Your task to perform on an android device: change keyboard looks Image 0: 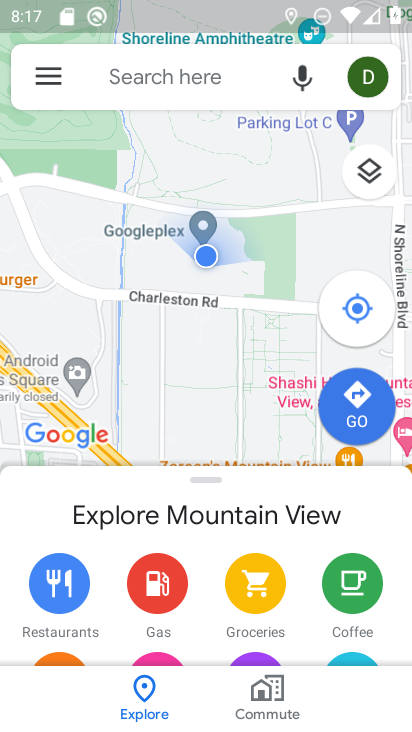
Step 0: press home button
Your task to perform on an android device: change keyboard looks Image 1: 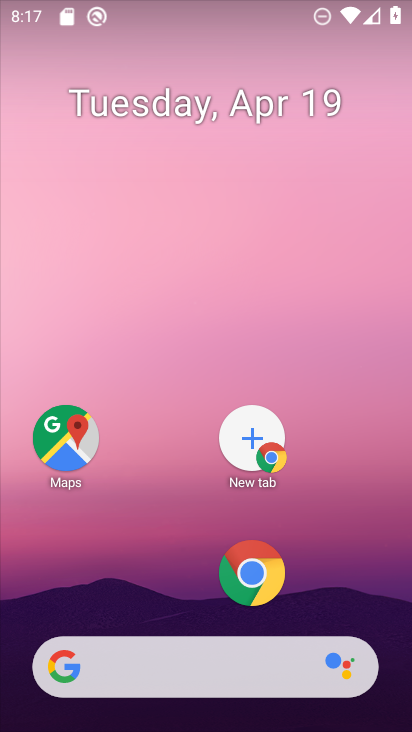
Step 1: drag from (157, 589) to (74, 5)
Your task to perform on an android device: change keyboard looks Image 2: 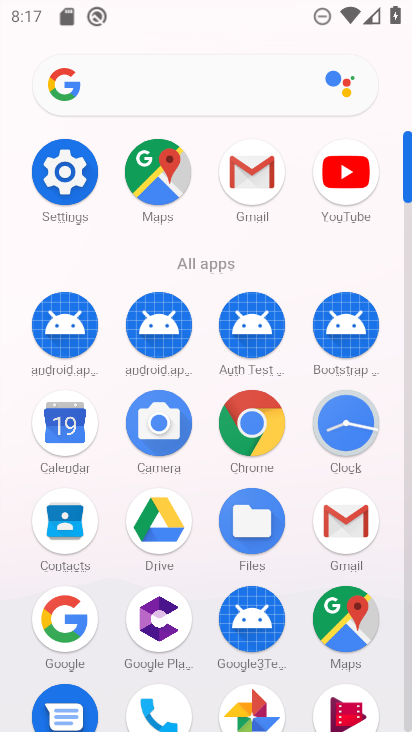
Step 2: click (68, 191)
Your task to perform on an android device: change keyboard looks Image 3: 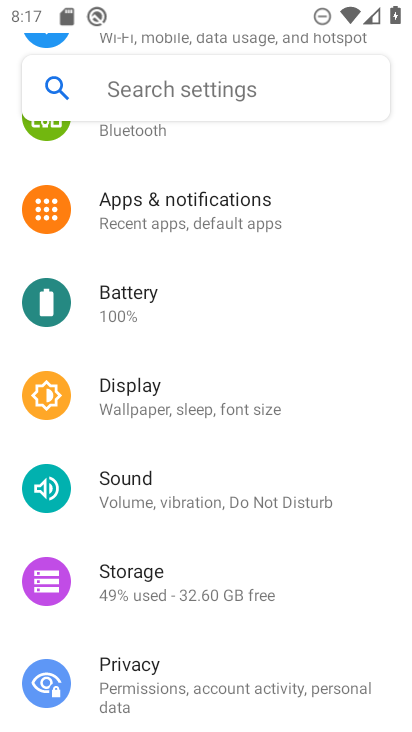
Step 3: click (164, 85)
Your task to perform on an android device: change keyboard looks Image 4: 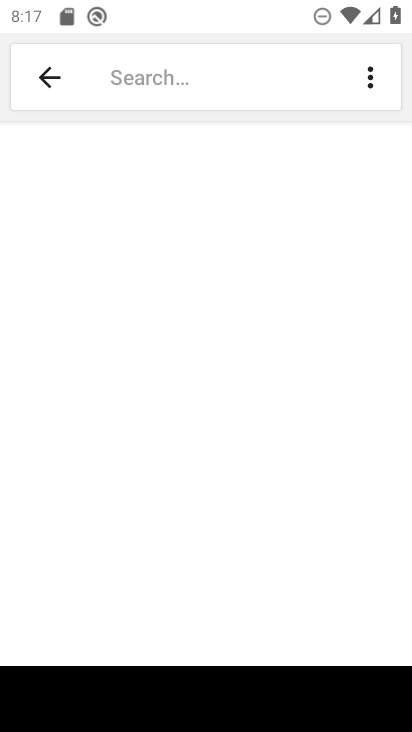
Step 4: type "keyboard"
Your task to perform on an android device: change keyboard looks Image 5: 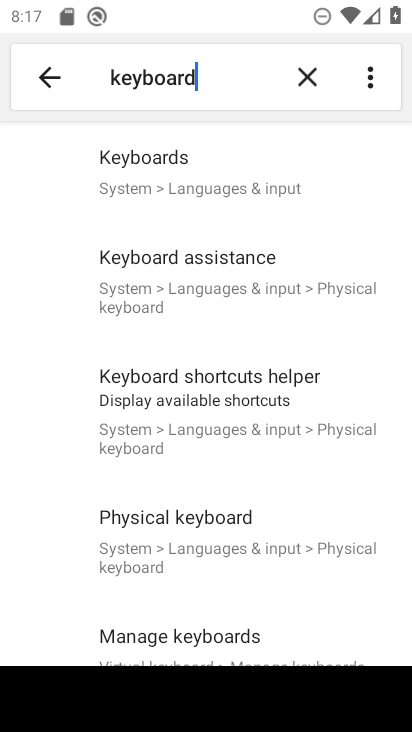
Step 5: click (207, 183)
Your task to perform on an android device: change keyboard looks Image 6: 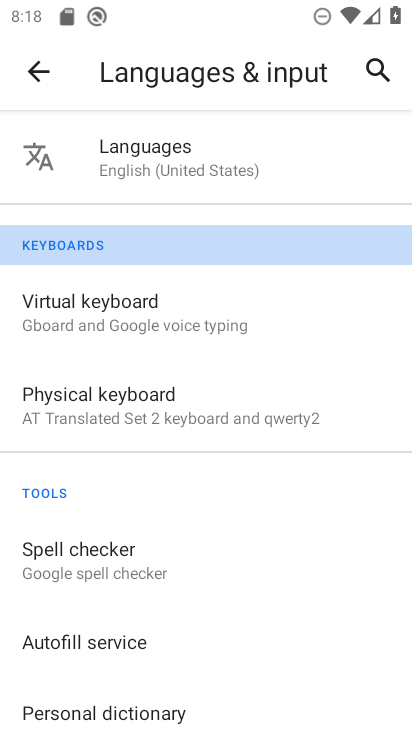
Step 6: click (79, 308)
Your task to perform on an android device: change keyboard looks Image 7: 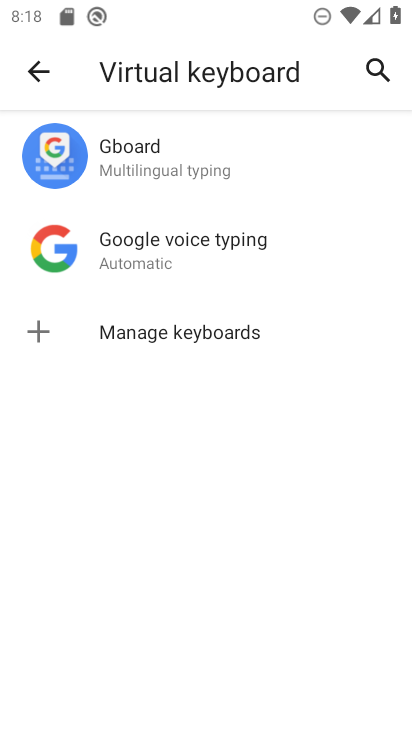
Step 7: click (197, 154)
Your task to perform on an android device: change keyboard looks Image 8: 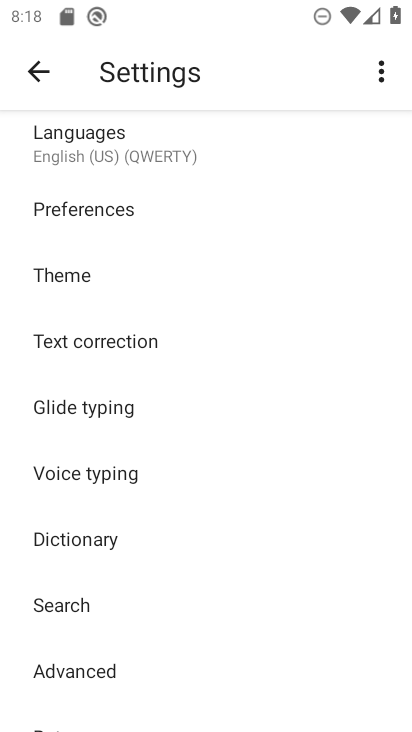
Step 8: click (133, 264)
Your task to perform on an android device: change keyboard looks Image 9: 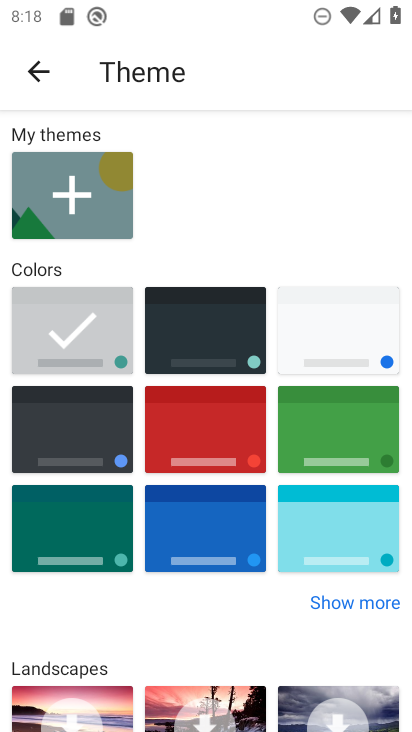
Step 9: click (195, 717)
Your task to perform on an android device: change keyboard looks Image 10: 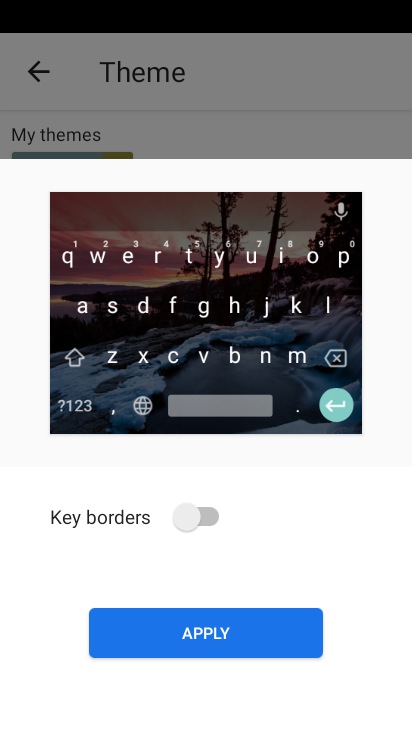
Step 10: click (213, 517)
Your task to perform on an android device: change keyboard looks Image 11: 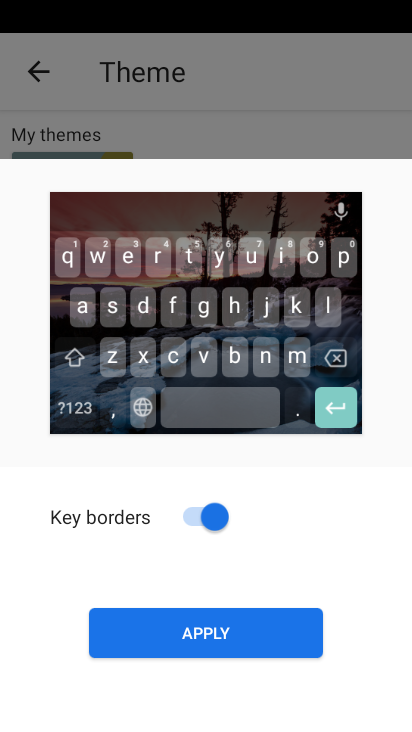
Step 11: click (226, 649)
Your task to perform on an android device: change keyboard looks Image 12: 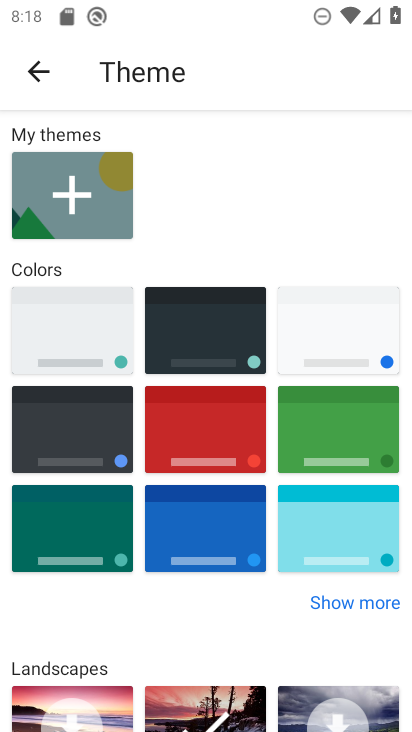
Step 12: task complete